Your task to perform on an android device: toggle improve location accuracy Image 0: 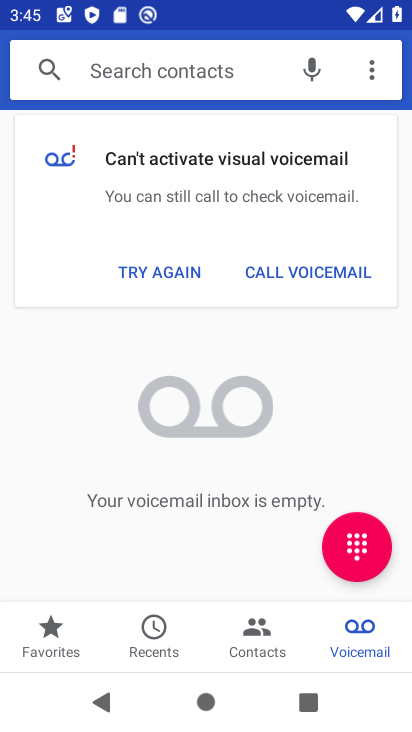
Step 0: press back button
Your task to perform on an android device: toggle improve location accuracy Image 1: 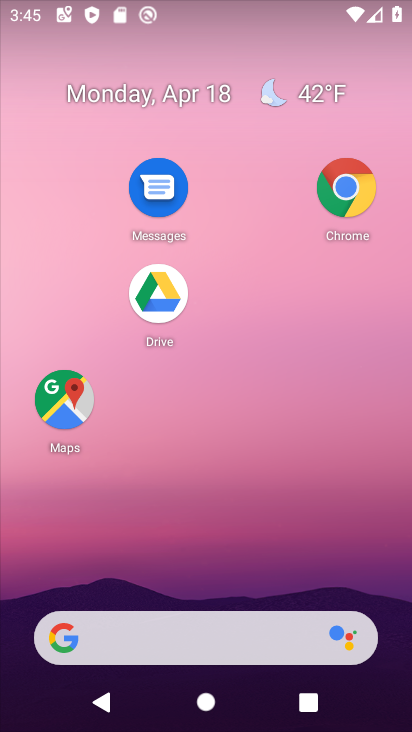
Step 1: drag from (269, 543) to (281, 70)
Your task to perform on an android device: toggle improve location accuracy Image 2: 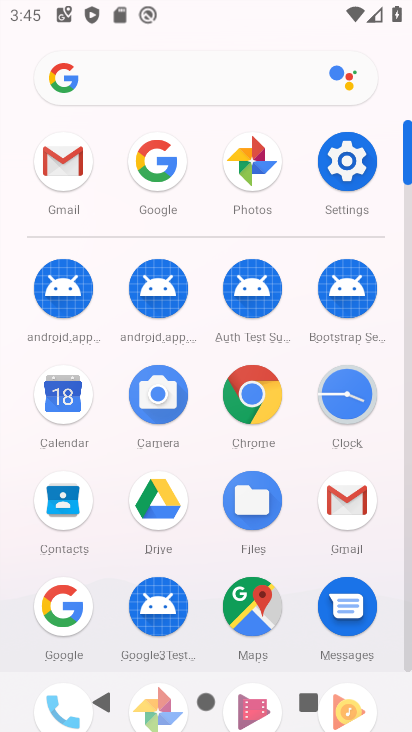
Step 2: click (345, 155)
Your task to perform on an android device: toggle improve location accuracy Image 3: 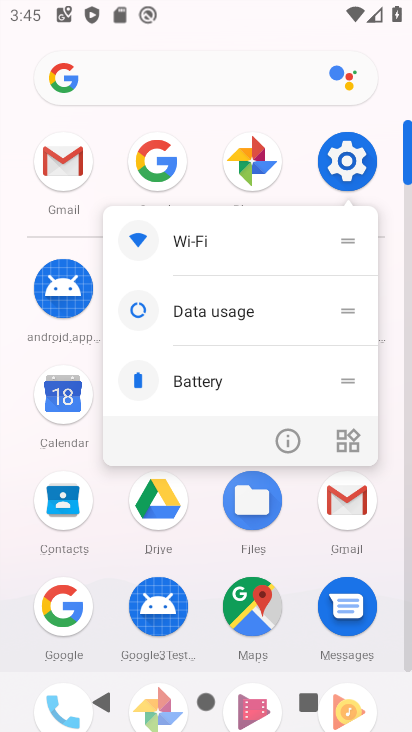
Step 3: click (345, 155)
Your task to perform on an android device: toggle improve location accuracy Image 4: 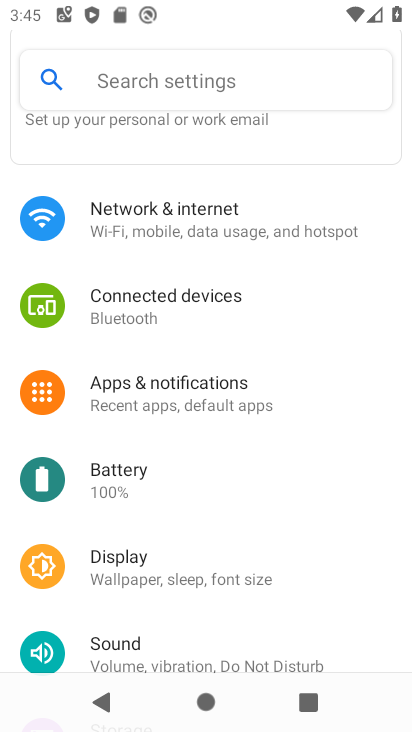
Step 4: drag from (172, 460) to (186, 393)
Your task to perform on an android device: toggle improve location accuracy Image 5: 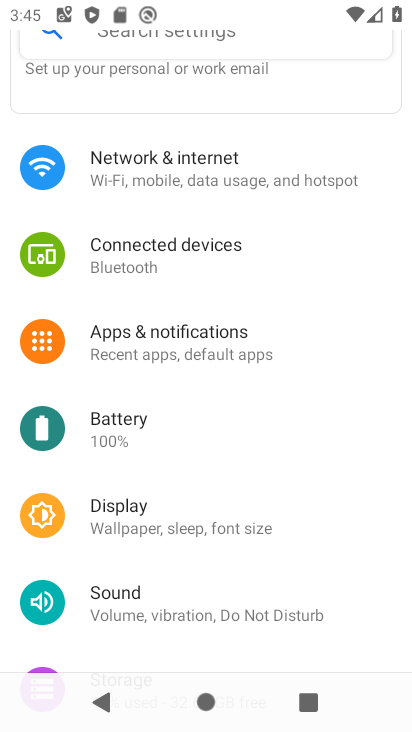
Step 5: drag from (201, 529) to (191, 473)
Your task to perform on an android device: toggle improve location accuracy Image 6: 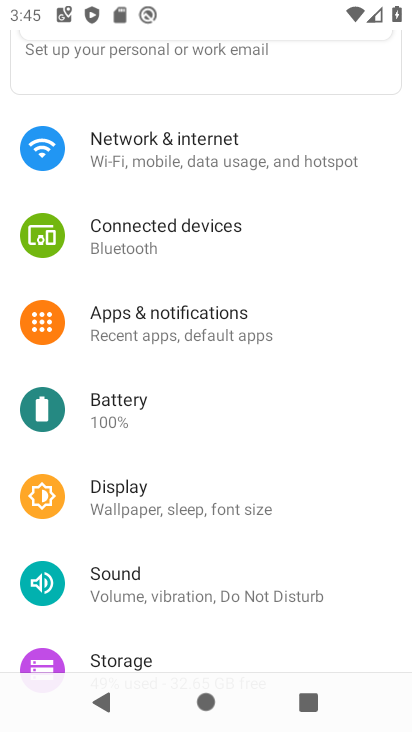
Step 6: drag from (196, 572) to (181, 486)
Your task to perform on an android device: toggle improve location accuracy Image 7: 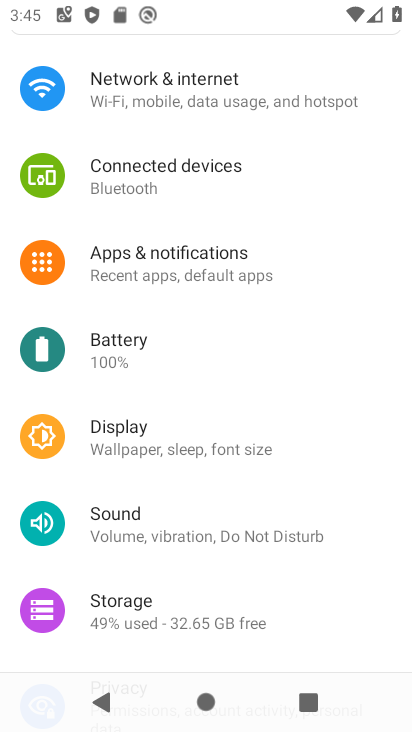
Step 7: drag from (188, 565) to (177, 492)
Your task to perform on an android device: toggle improve location accuracy Image 8: 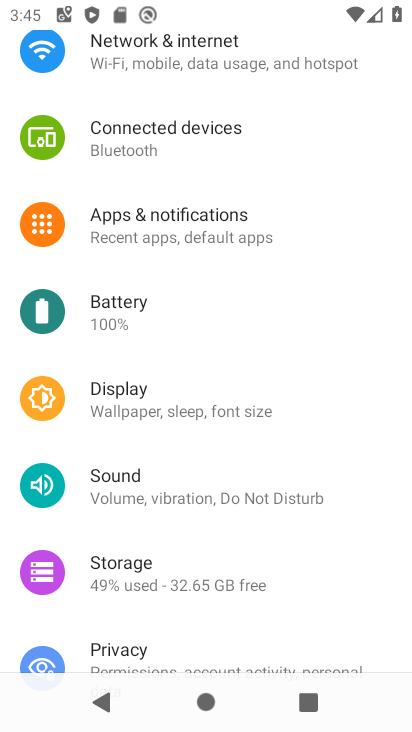
Step 8: drag from (193, 596) to (182, 518)
Your task to perform on an android device: toggle improve location accuracy Image 9: 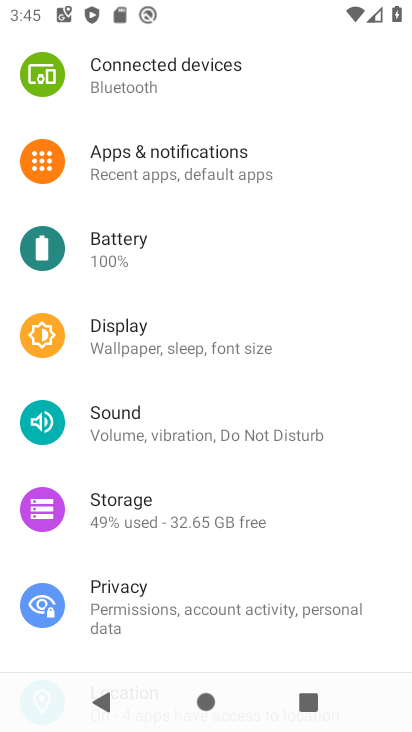
Step 9: drag from (186, 577) to (187, 503)
Your task to perform on an android device: toggle improve location accuracy Image 10: 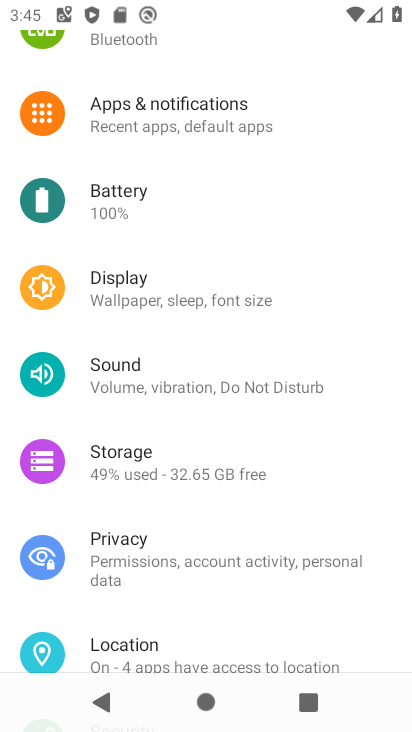
Step 10: drag from (194, 614) to (192, 522)
Your task to perform on an android device: toggle improve location accuracy Image 11: 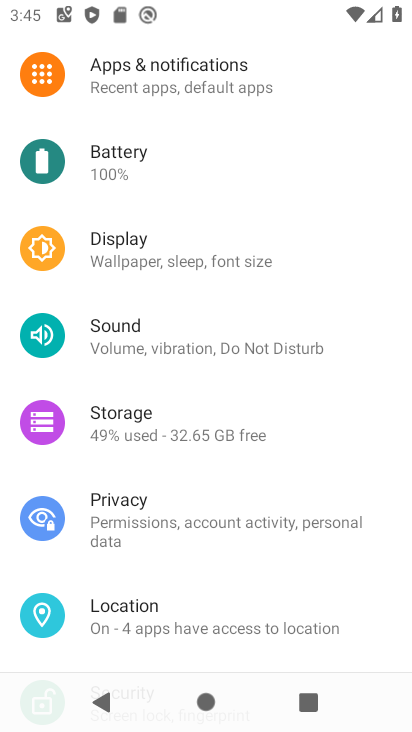
Step 11: drag from (202, 590) to (175, 460)
Your task to perform on an android device: toggle improve location accuracy Image 12: 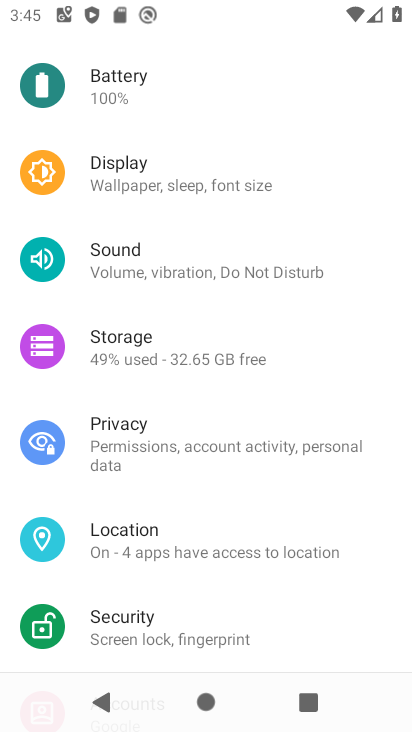
Step 12: click (148, 540)
Your task to perform on an android device: toggle improve location accuracy Image 13: 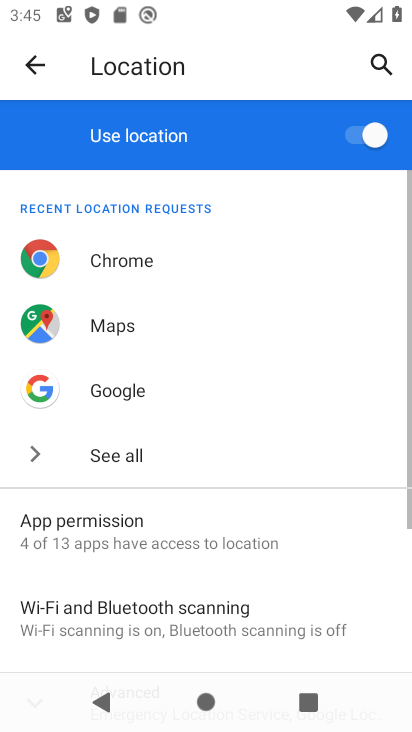
Step 13: drag from (209, 474) to (211, 395)
Your task to perform on an android device: toggle improve location accuracy Image 14: 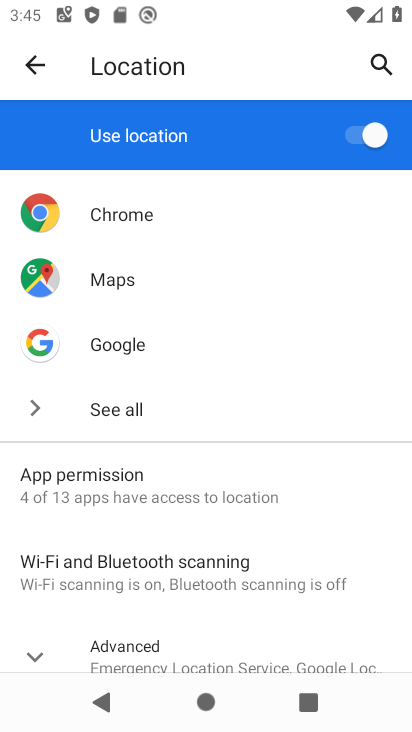
Step 14: drag from (209, 589) to (199, 491)
Your task to perform on an android device: toggle improve location accuracy Image 15: 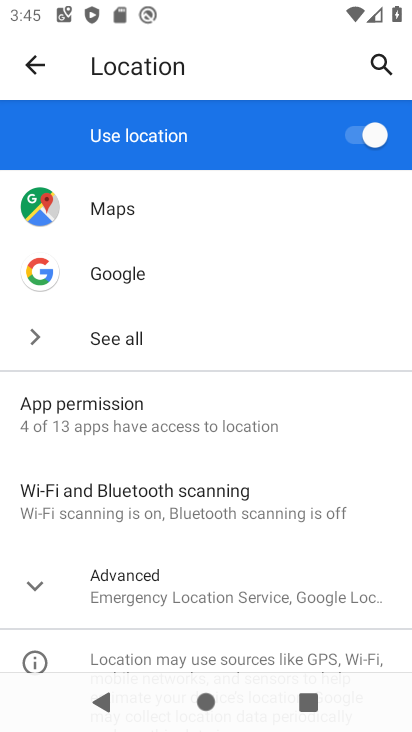
Step 15: click (225, 603)
Your task to perform on an android device: toggle improve location accuracy Image 16: 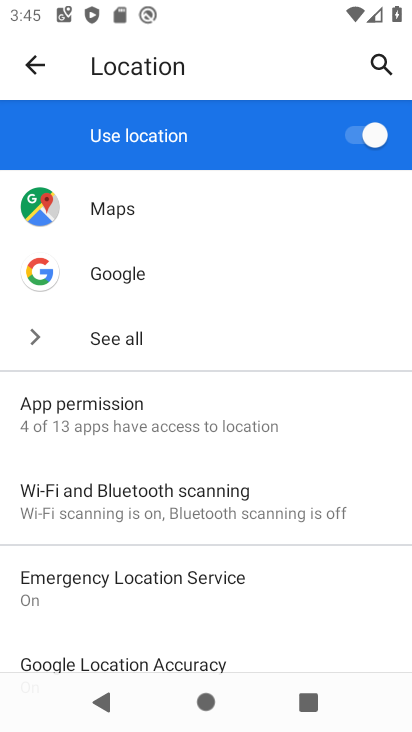
Step 16: drag from (222, 589) to (215, 515)
Your task to perform on an android device: toggle improve location accuracy Image 17: 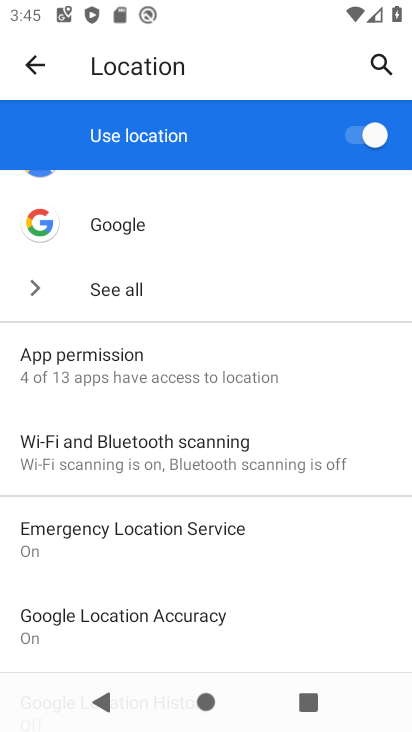
Step 17: drag from (242, 604) to (212, 545)
Your task to perform on an android device: toggle improve location accuracy Image 18: 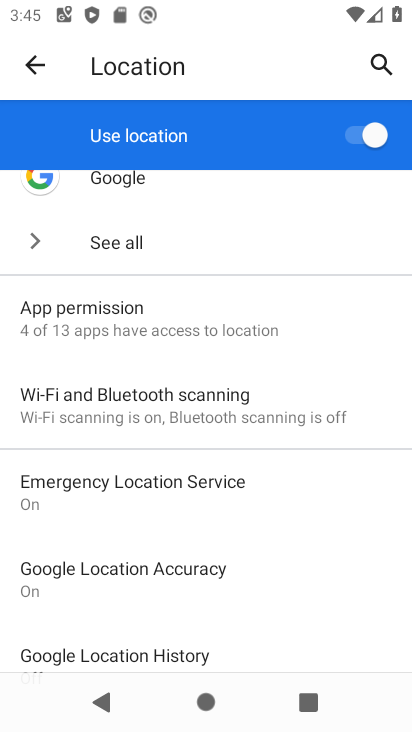
Step 18: click (171, 577)
Your task to perform on an android device: toggle improve location accuracy Image 19: 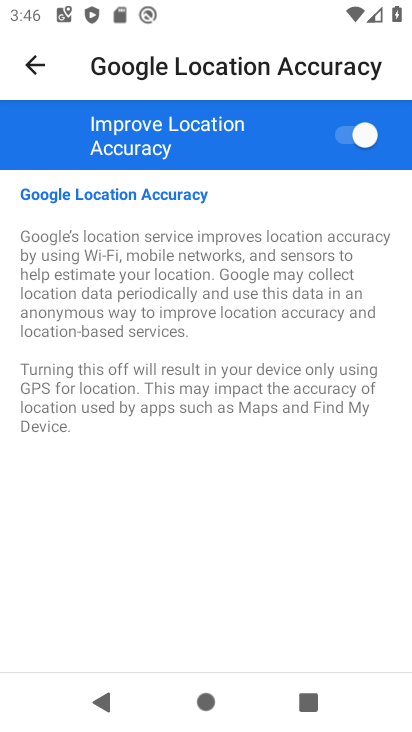
Step 19: click (367, 133)
Your task to perform on an android device: toggle improve location accuracy Image 20: 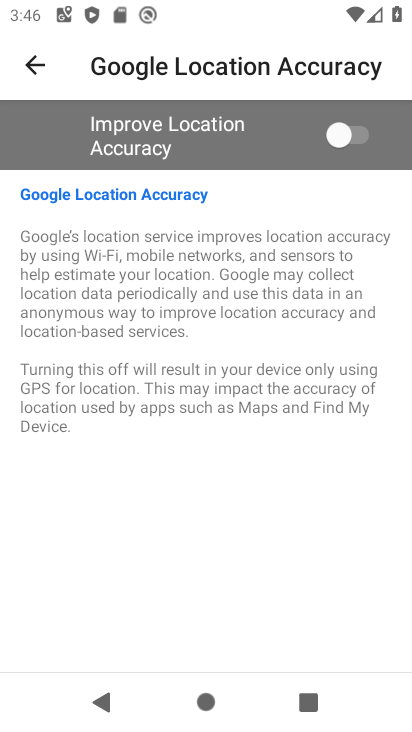
Step 20: task complete